Your task to perform on an android device: toggle notification dots Image 0: 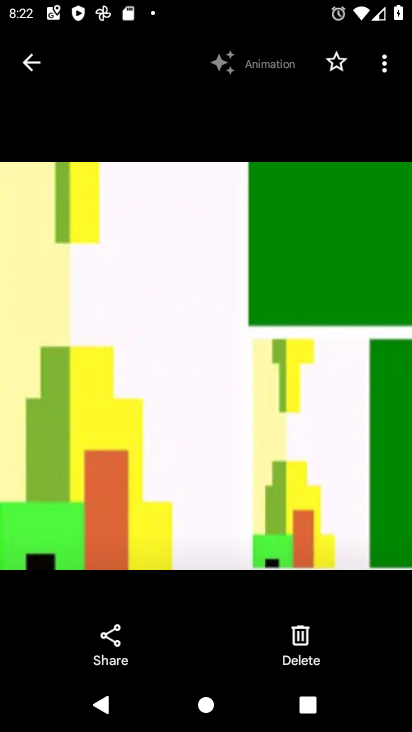
Step 0: press home button
Your task to perform on an android device: toggle notification dots Image 1: 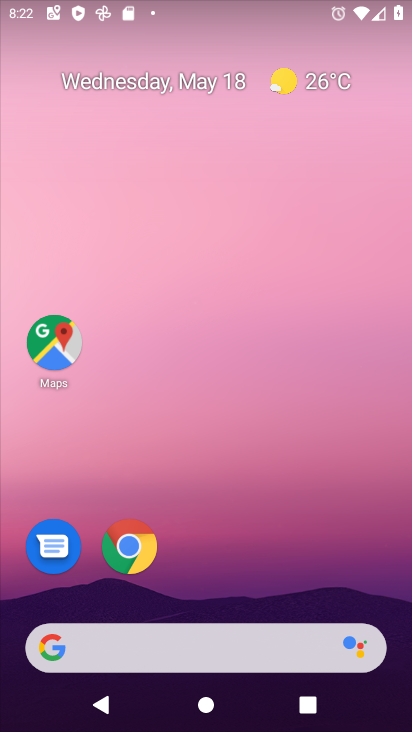
Step 1: drag from (399, 654) to (378, 103)
Your task to perform on an android device: toggle notification dots Image 2: 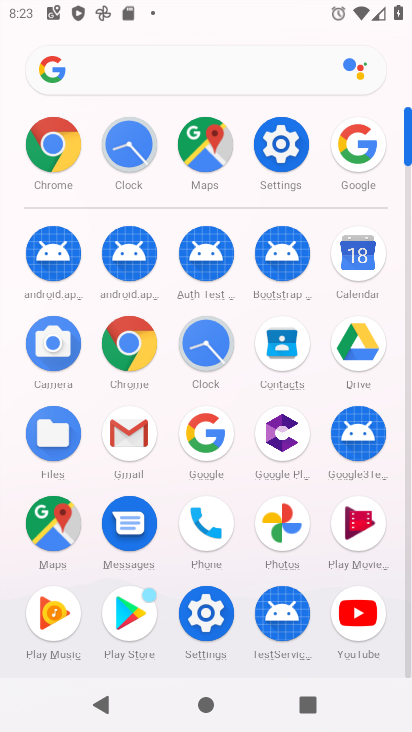
Step 2: click (196, 612)
Your task to perform on an android device: toggle notification dots Image 3: 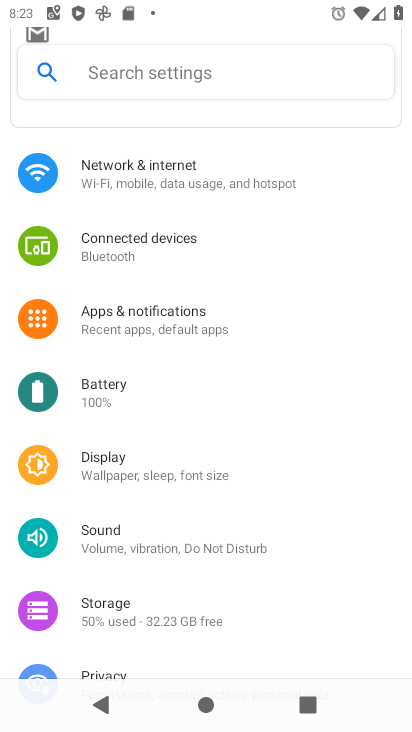
Step 3: click (195, 319)
Your task to perform on an android device: toggle notification dots Image 4: 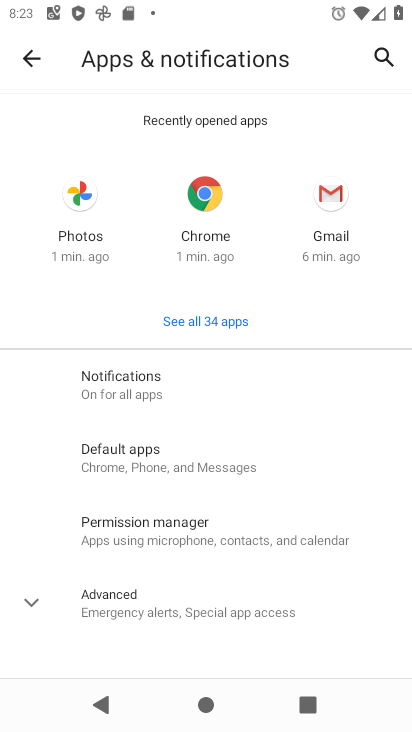
Step 4: click (186, 415)
Your task to perform on an android device: toggle notification dots Image 5: 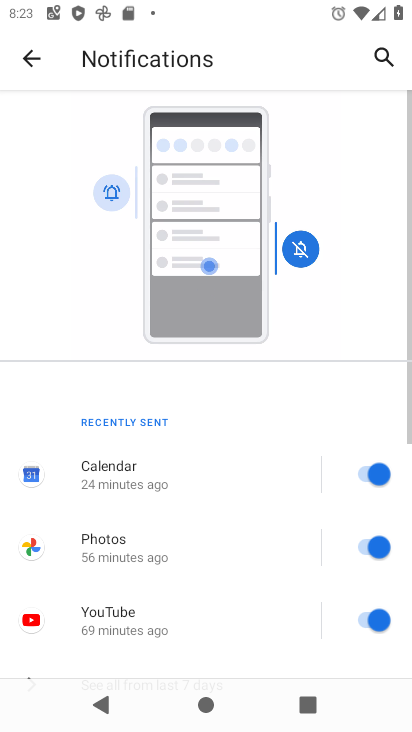
Step 5: drag from (262, 367) to (243, 165)
Your task to perform on an android device: toggle notification dots Image 6: 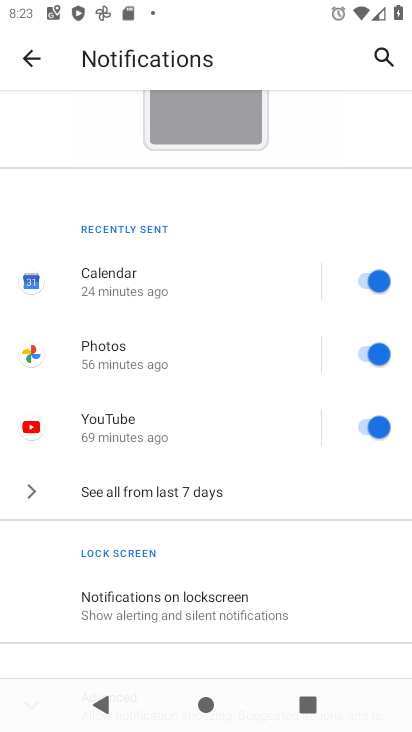
Step 6: drag from (170, 602) to (185, 117)
Your task to perform on an android device: toggle notification dots Image 7: 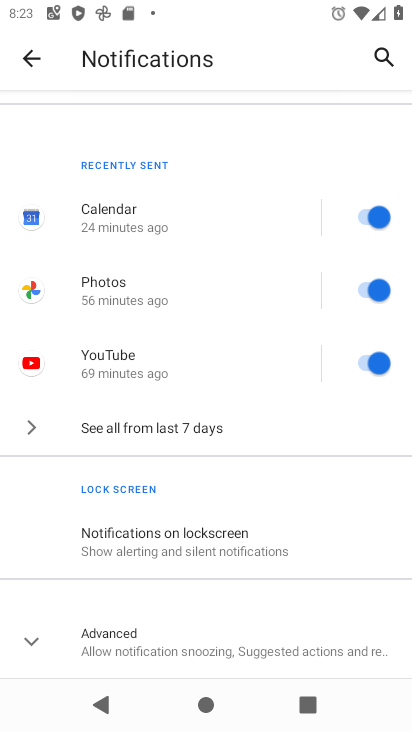
Step 7: click (172, 657)
Your task to perform on an android device: toggle notification dots Image 8: 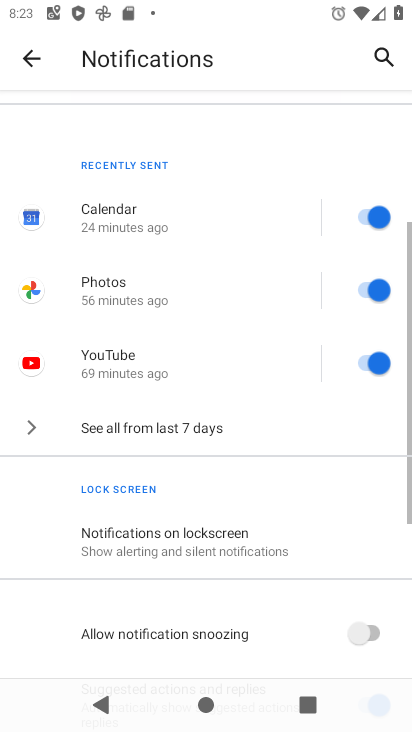
Step 8: drag from (172, 657) to (147, 155)
Your task to perform on an android device: toggle notification dots Image 9: 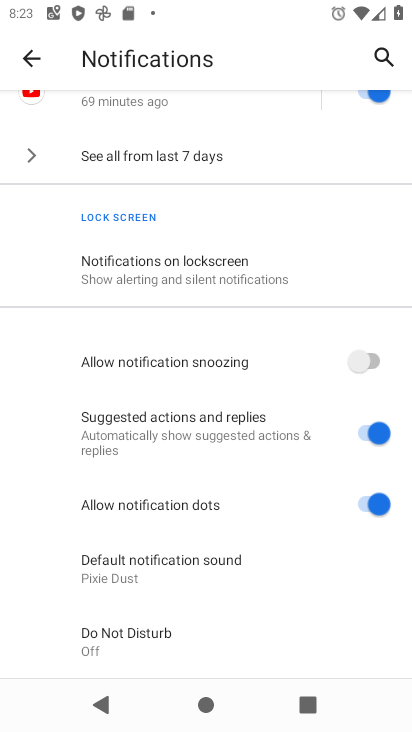
Step 9: click (328, 504)
Your task to perform on an android device: toggle notification dots Image 10: 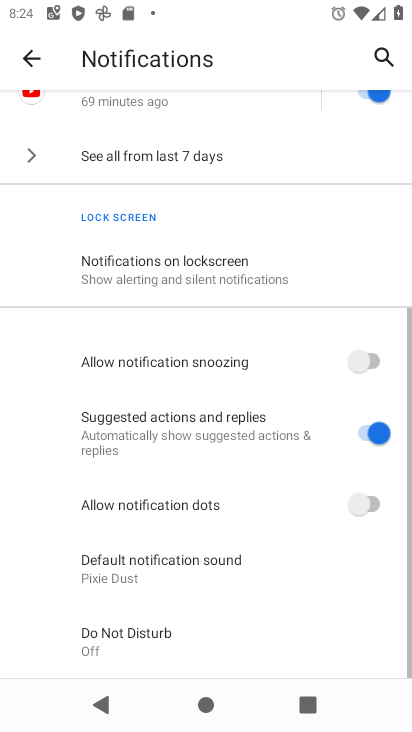
Step 10: task complete